Your task to perform on an android device: Open Chrome and go to the settings page Image 0: 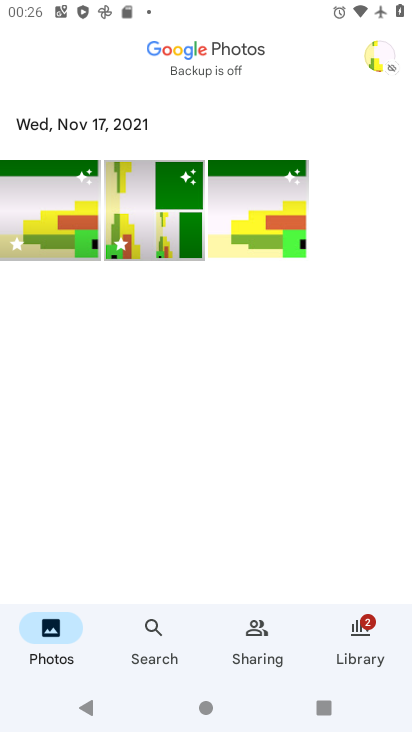
Step 0: press home button
Your task to perform on an android device: Open Chrome and go to the settings page Image 1: 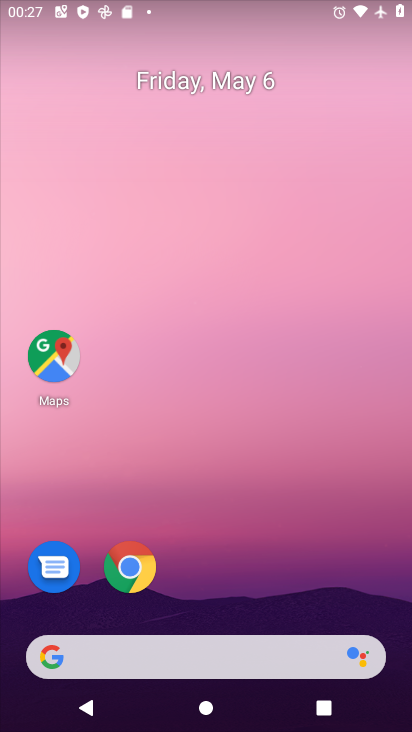
Step 1: click (145, 588)
Your task to perform on an android device: Open Chrome and go to the settings page Image 2: 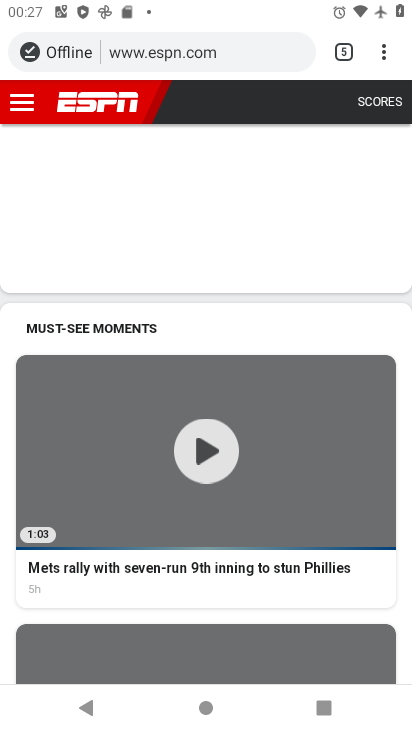
Step 2: click (379, 55)
Your task to perform on an android device: Open Chrome and go to the settings page Image 3: 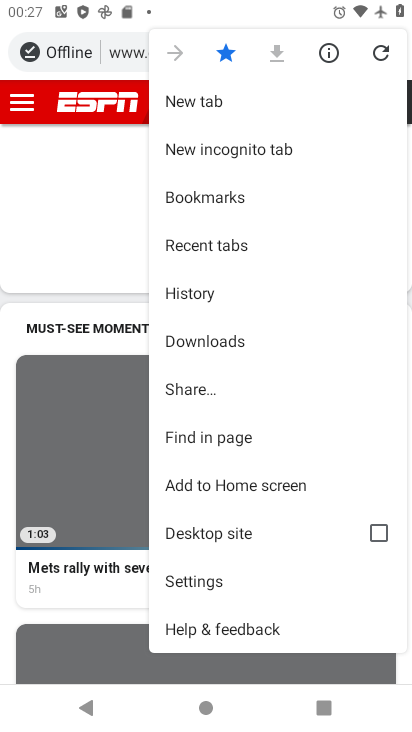
Step 3: click (206, 566)
Your task to perform on an android device: Open Chrome and go to the settings page Image 4: 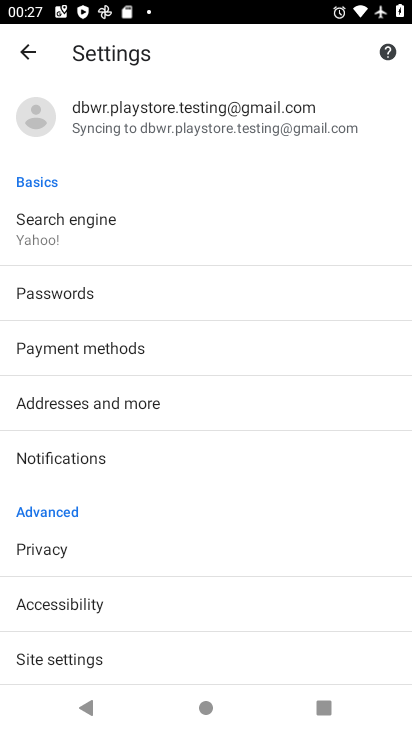
Step 4: task complete